Your task to perform on an android device: Go to CNN.com Image 0: 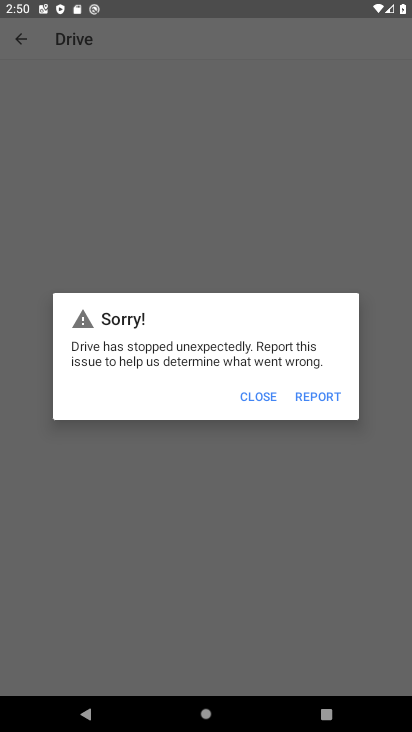
Step 0: press home button
Your task to perform on an android device: Go to CNN.com Image 1: 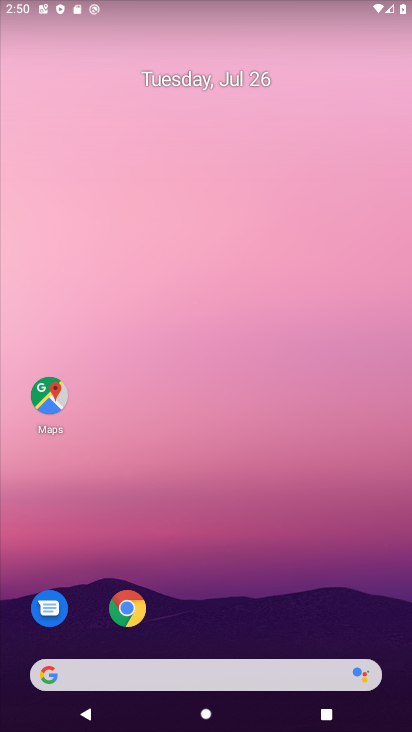
Step 1: click (244, 661)
Your task to perform on an android device: Go to CNN.com Image 2: 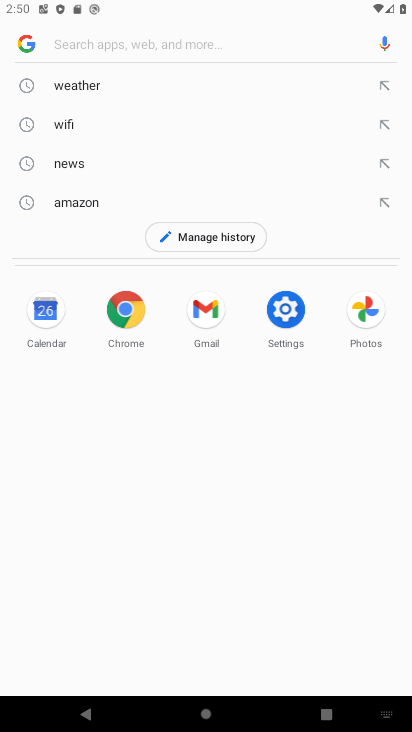
Step 2: type "cnnn.com"
Your task to perform on an android device: Go to CNN.com Image 3: 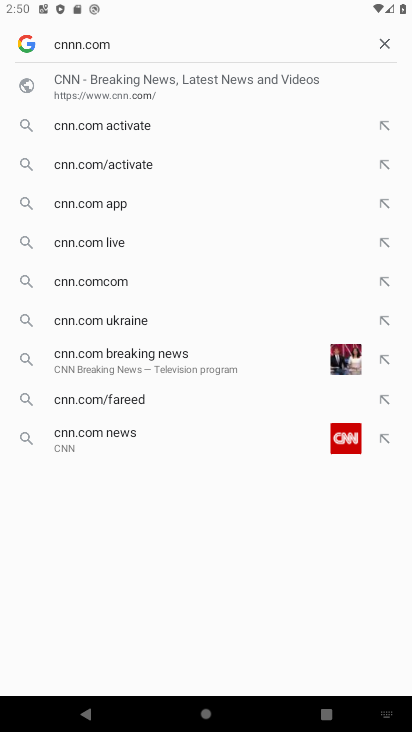
Step 3: click (195, 90)
Your task to perform on an android device: Go to CNN.com Image 4: 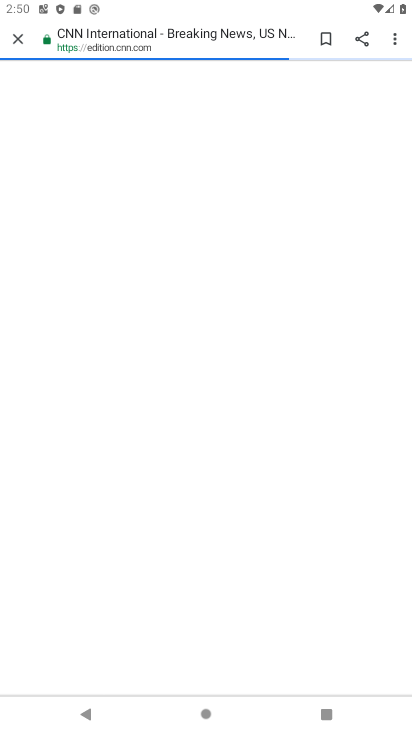
Step 4: task complete